Your task to perform on an android device: Go to eBay Image 0: 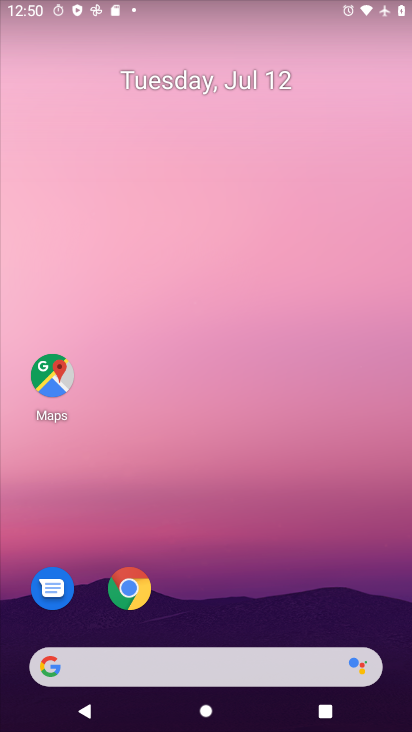
Step 0: press home button
Your task to perform on an android device: Go to eBay Image 1: 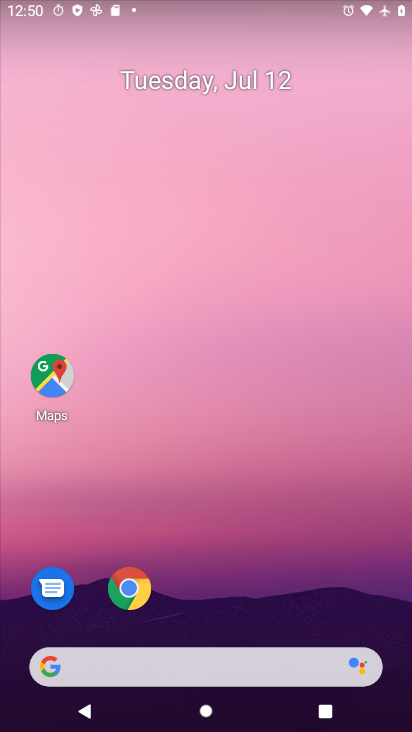
Step 1: click (115, 584)
Your task to perform on an android device: Go to eBay Image 2: 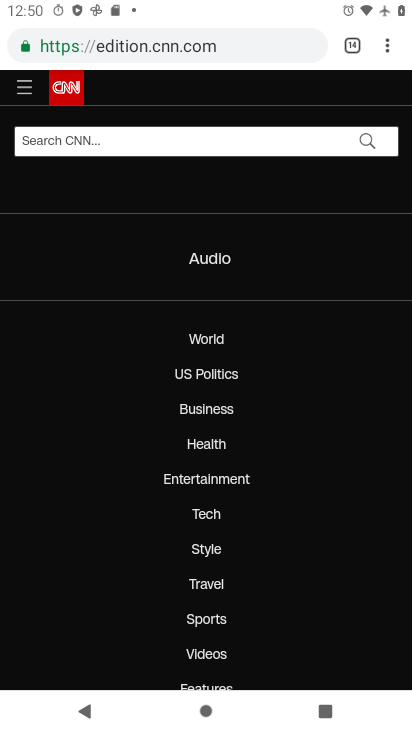
Step 2: drag from (383, 42) to (286, 91)
Your task to perform on an android device: Go to eBay Image 3: 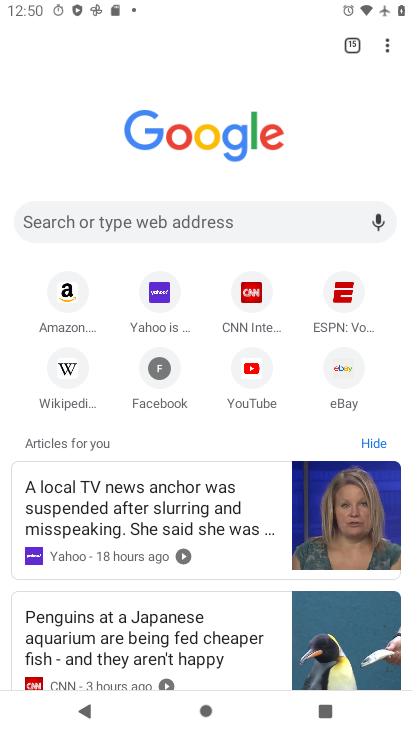
Step 3: click (339, 373)
Your task to perform on an android device: Go to eBay Image 4: 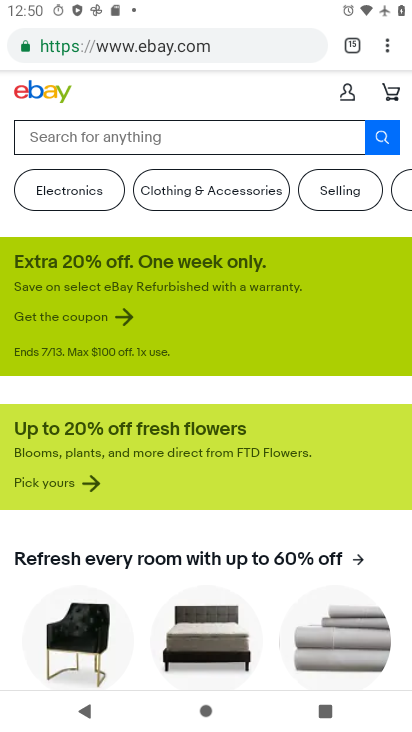
Step 4: task complete